Your task to perform on an android device: Search for vegetarian restaurants on Maps Image 0: 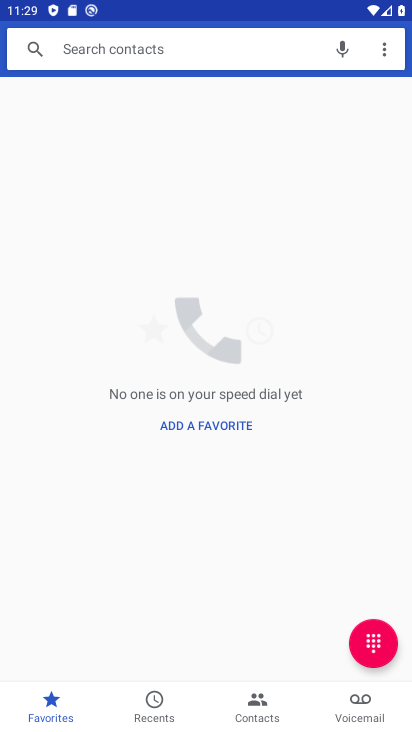
Step 0: press home button
Your task to perform on an android device: Search for vegetarian restaurants on Maps Image 1: 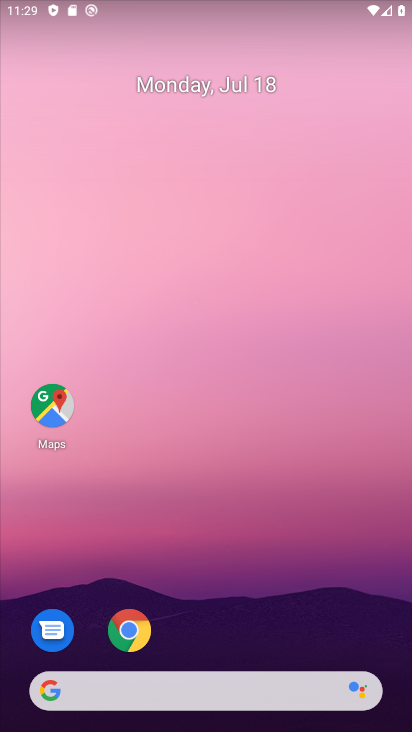
Step 1: click (55, 395)
Your task to perform on an android device: Search for vegetarian restaurants on Maps Image 2: 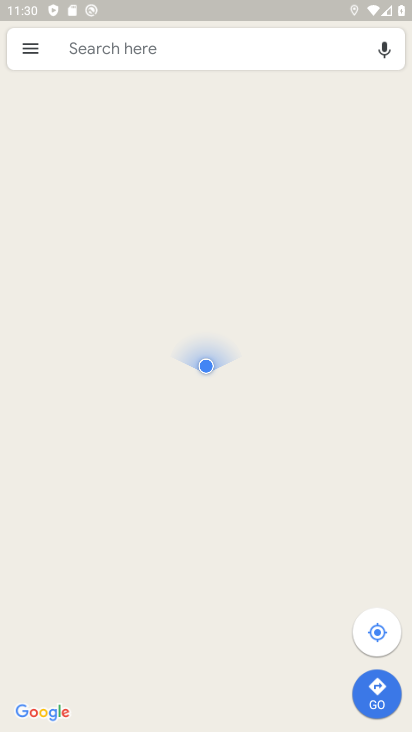
Step 2: click (263, 49)
Your task to perform on an android device: Search for vegetarian restaurants on Maps Image 3: 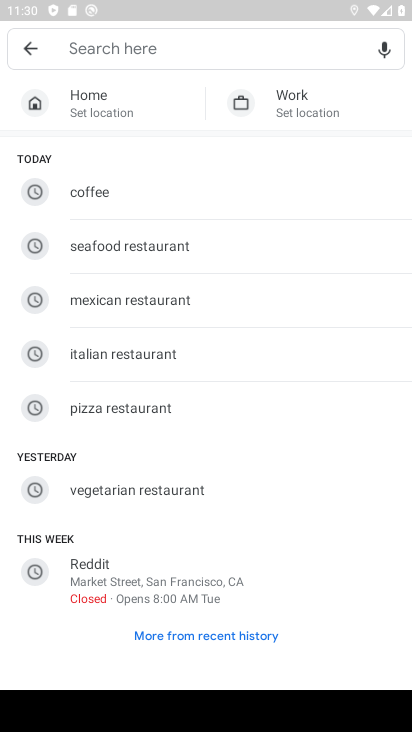
Step 3: click (245, 494)
Your task to perform on an android device: Search for vegetarian restaurants on Maps Image 4: 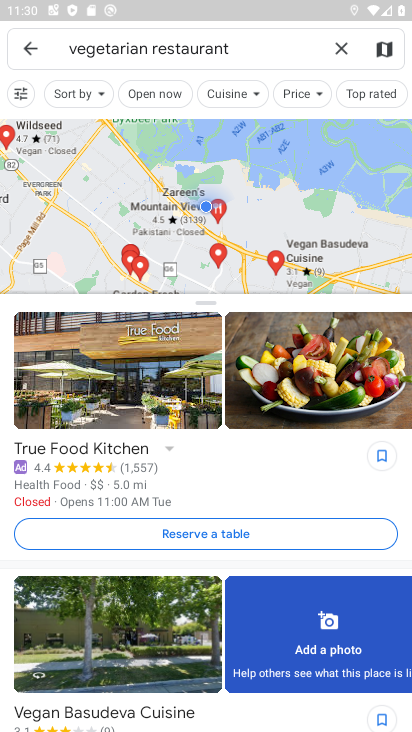
Step 4: task complete